Your task to perform on an android device: Go to Reddit.com Image 0: 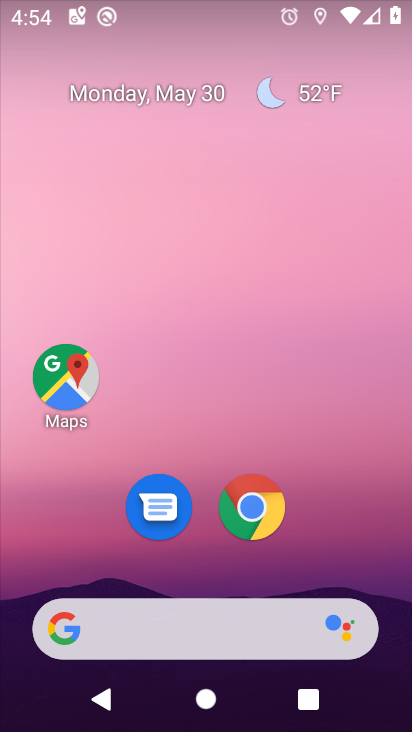
Step 0: click (240, 522)
Your task to perform on an android device: Go to Reddit.com Image 1: 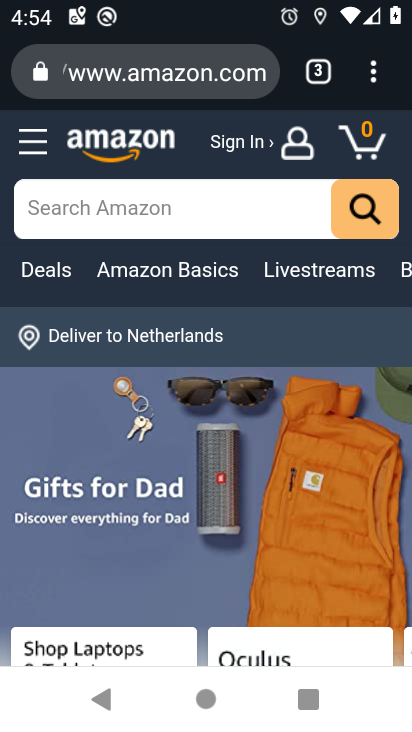
Step 1: click (216, 58)
Your task to perform on an android device: Go to Reddit.com Image 2: 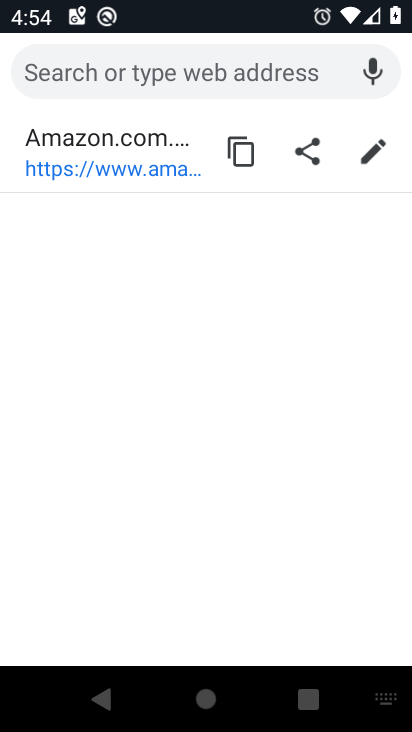
Step 2: type "Reddit.com"
Your task to perform on an android device: Go to Reddit.com Image 3: 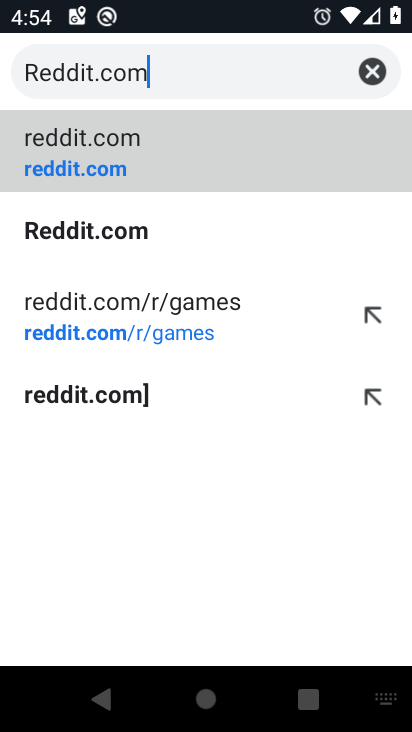
Step 3: type ""
Your task to perform on an android device: Go to Reddit.com Image 4: 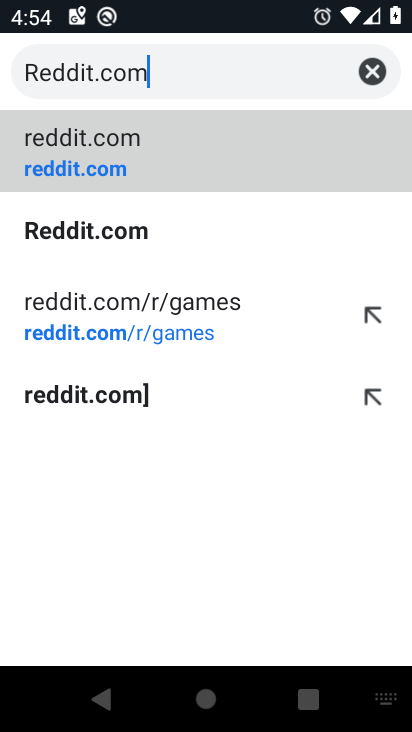
Step 4: click (103, 184)
Your task to perform on an android device: Go to Reddit.com Image 5: 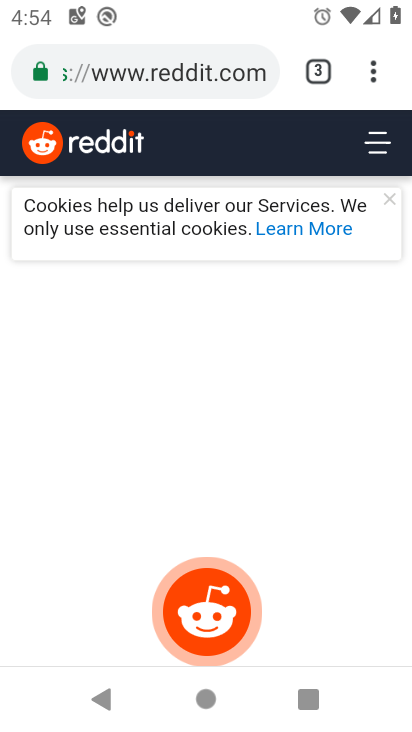
Step 5: task complete